Your task to perform on an android device: Open Youtube and go to the subscriptions tab Image 0: 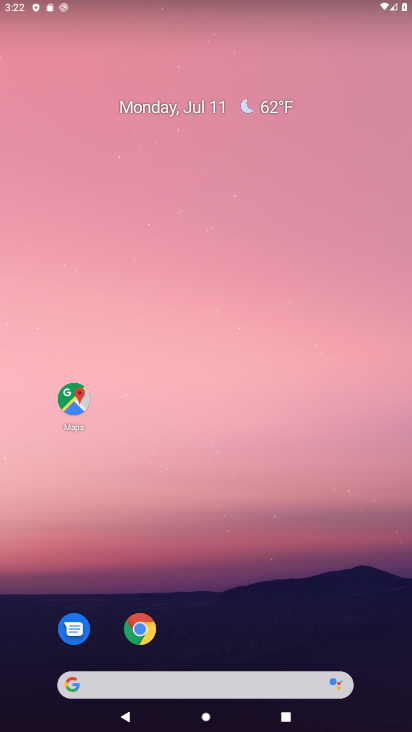
Step 0: drag from (236, 607) to (222, 129)
Your task to perform on an android device: Open Youtube and go to the subscriptions tab Image 1: 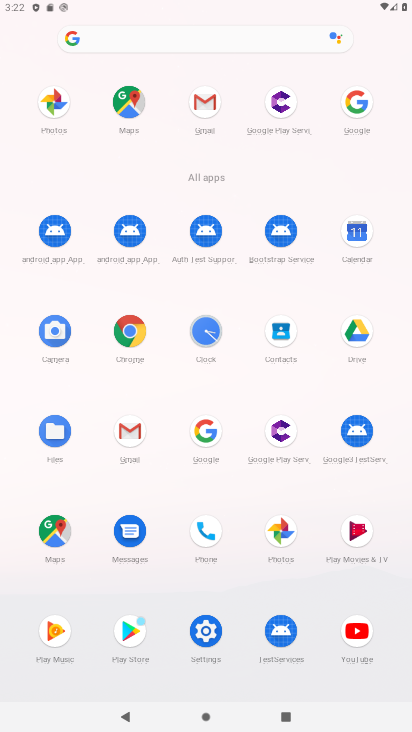
Step 1: click (363, 623)
Your task to perform on an android device: Open Youtube and go to the subscriptions tab Image 2: 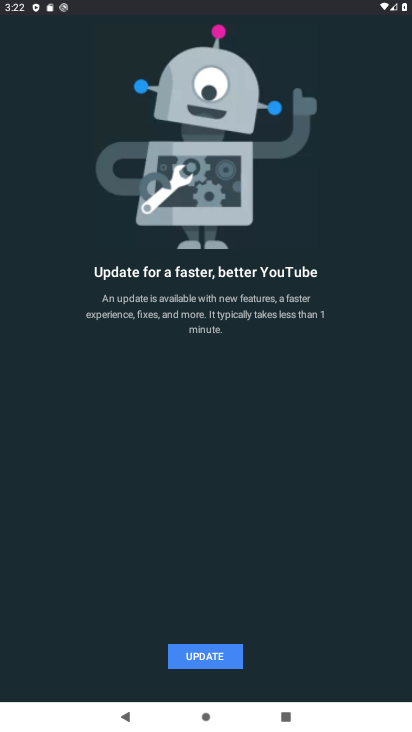
Step 2: click (231, 665)
Your task to perform on an android device: Open Youtube and go to the subscriptions tab Image 3: 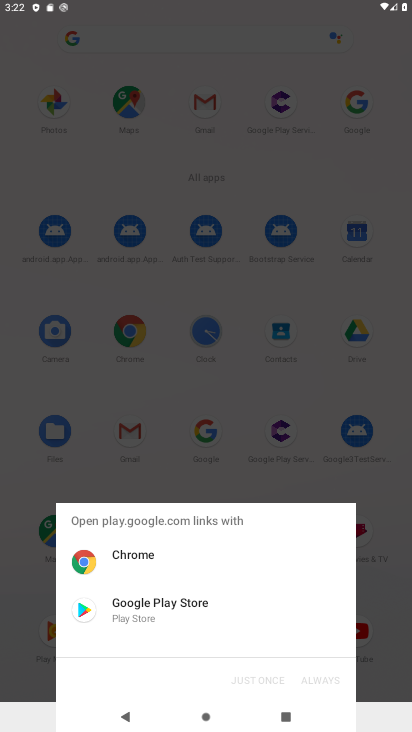
Step 3: click (172, 621)
Your task to perform on an android device: Open Youtube and go to the subscriptions tab Image 4: 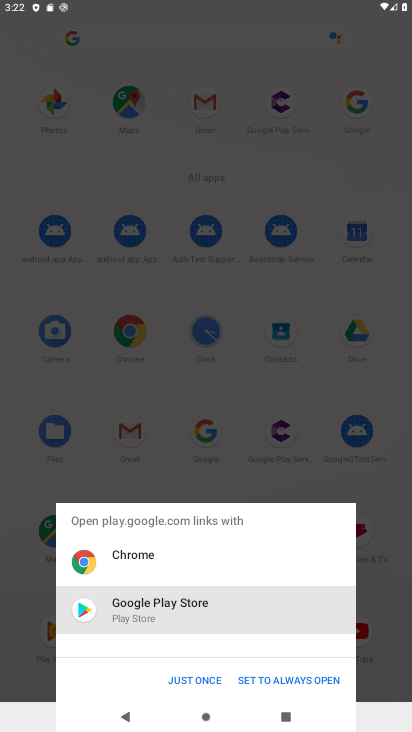
Step 4: click (201, 676)
Your task to perform on an android device: Open Youtube and go to the subscriptions tab Image 5: 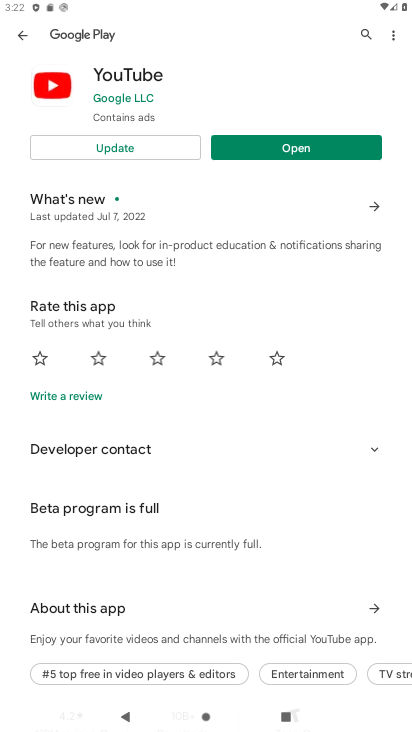
Step 5: click (126, 142)
Your task to perform on an android device: Open Youtube and go to the subscriptions tab Image 6: 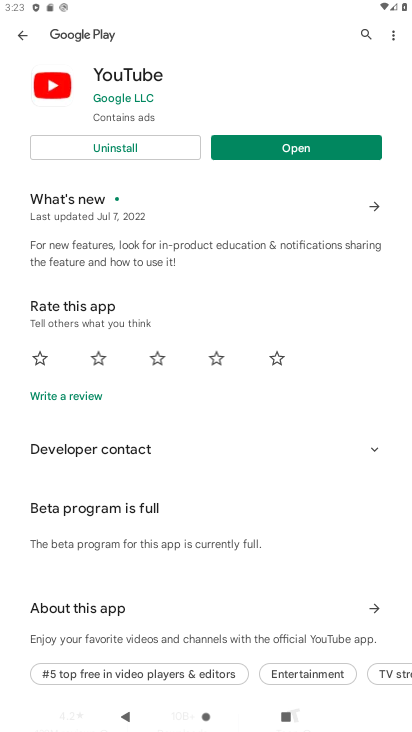
Step 6: click (246, 142)
Your task to perform on an android device: Open Youtube and go to the subscriptions tab Image 7: 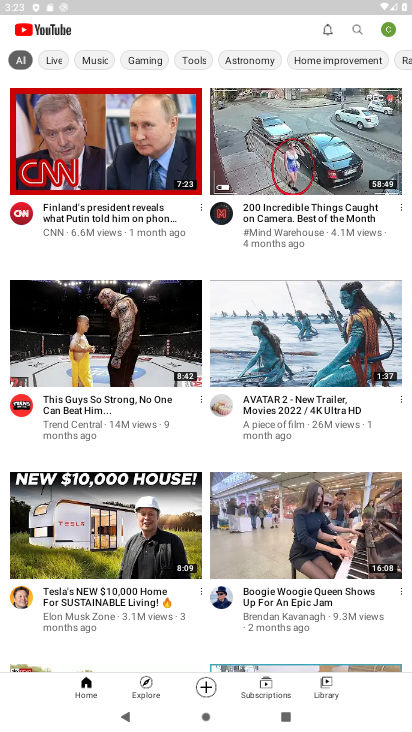
Step 7: click (253, 691)
Your task to perform on an android device: Open Youtube and go to the subscriptions tab Image 8: 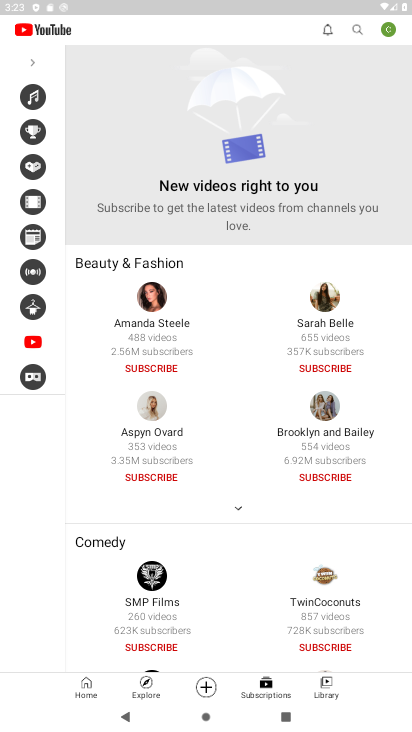
Step 8: task complete